Your task to perform on an android device: Find coffee shops on Maps Image 0: 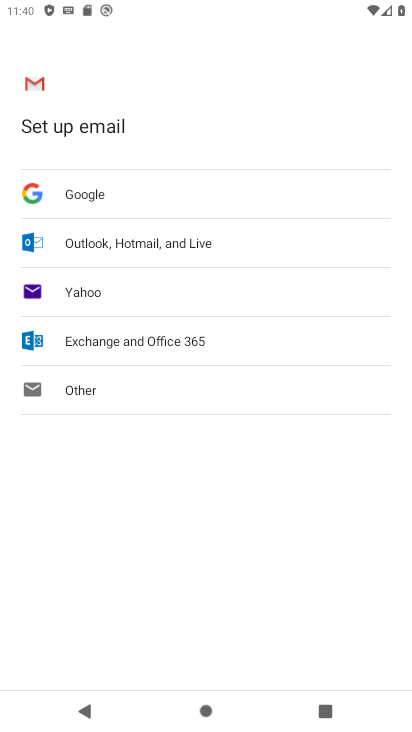
Step 0: press home button
Your task to perform on an android device: Find coffee shops on Maps Image 1: 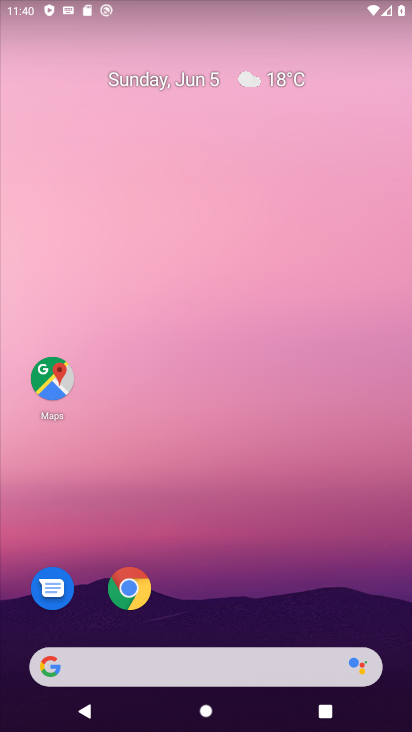
Step 1: click (41, 387)
Your task to perform on an android device: Find coffee shops on Maps Image 2: 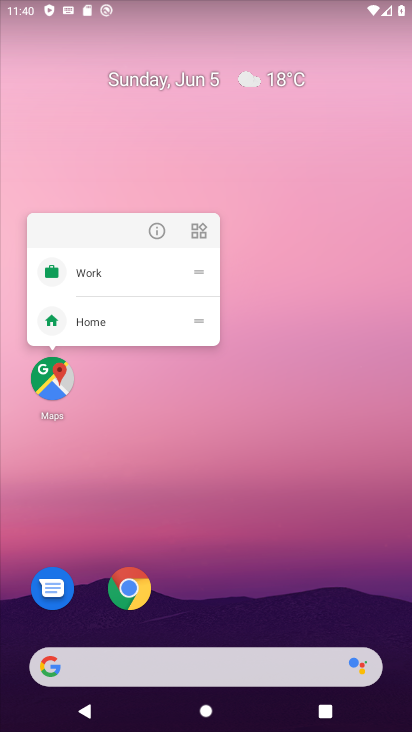
Step 2: click (41, 387)
Your task to perform on an android device: Find coffee shops on Maps Image 3: 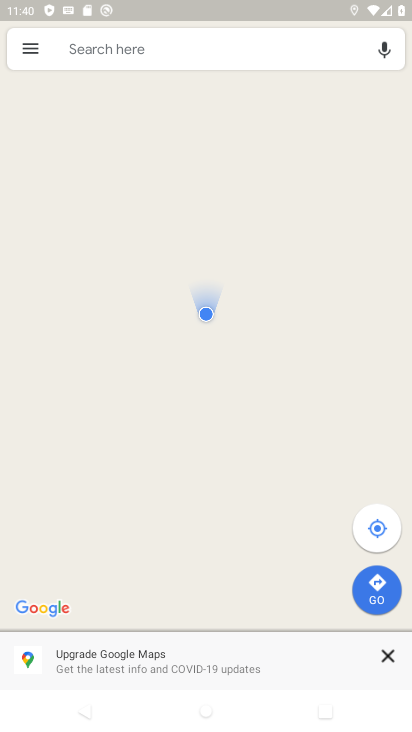
Step 3: click (212, 40)
Your task to perform on an android device: Find coffee shops on Maps Image 4: 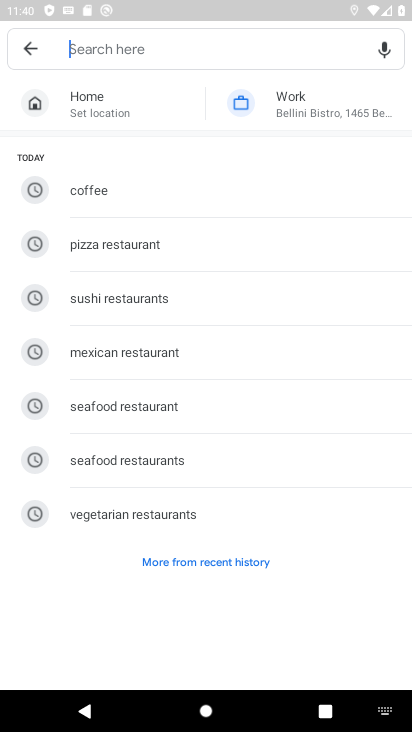
Step 4: type "coffee shops"
Your task to perform on an android device: Find coffee shops on Maps Image 5: 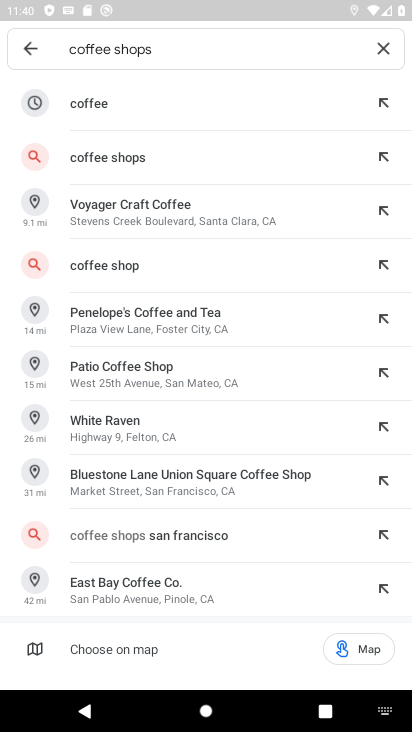
Step 5: click (227, 149)
Your task to perform on an android device: Find coffee shops on Maps Image 6: 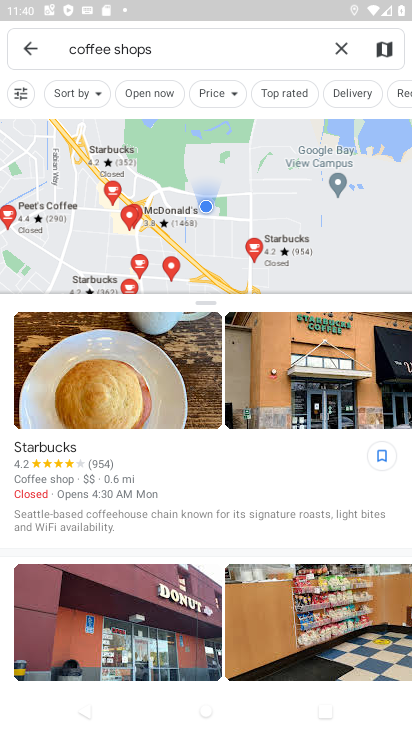
Step 6: task complete